Your task to perform on an android device: open app "Spotify" (install if not already installed) Image 0: 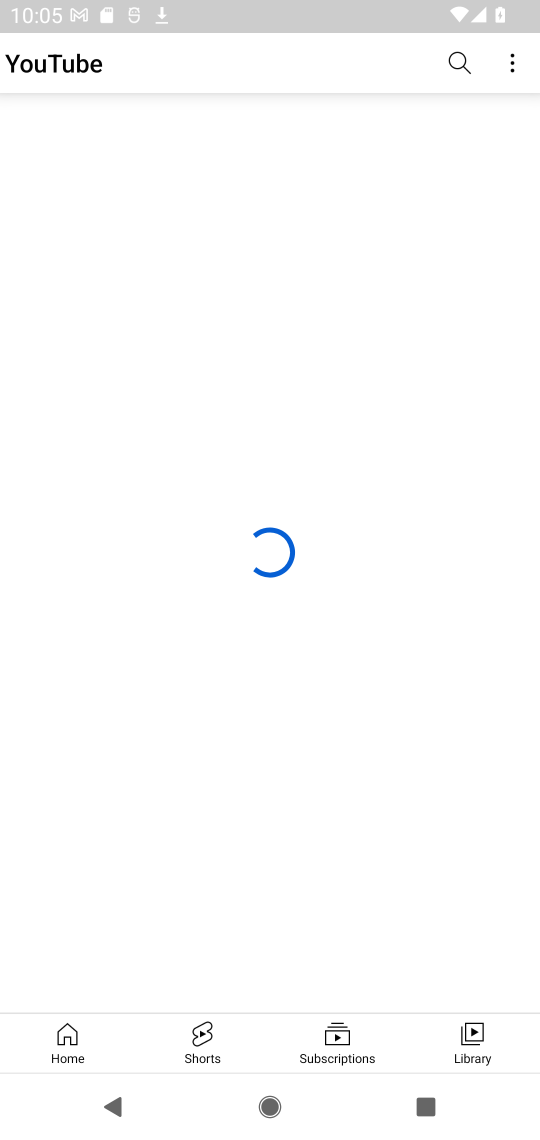
Step 0: press home button
Your task to perform on an android device: open app "Spotify" (install if not already installed) Image 1: 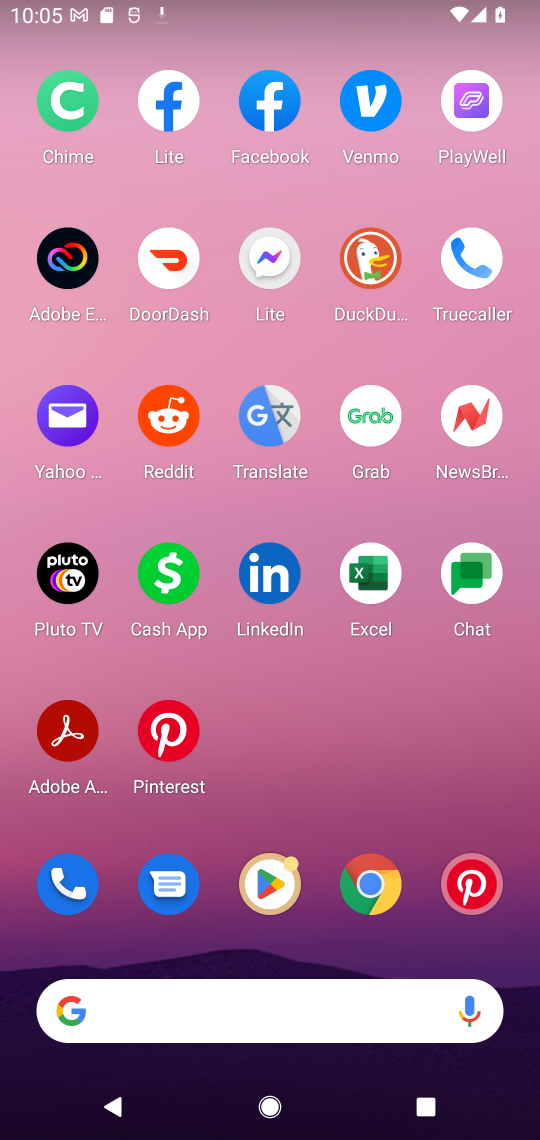
Step 1: click (282, 904)
Your task to perform on an android device: open app "Spotify" (install if not already installed) Image 2: 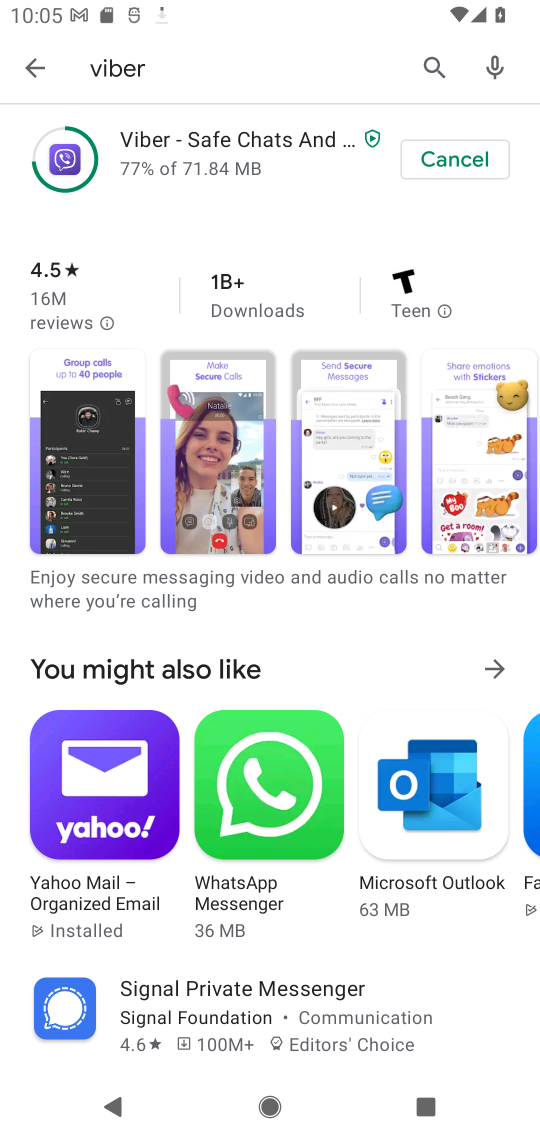
Step 2: click (412, 121)
Your task to perform on an android device: open app "Spotify" (install if not already installed) Image 3: 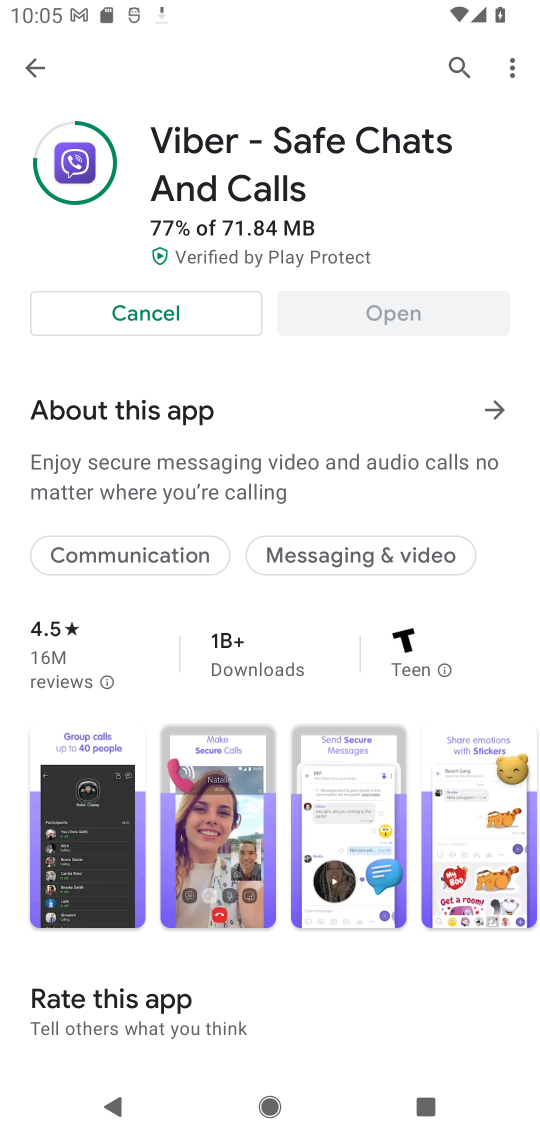
Step 3: click (509, 60)
Your task to perform on an android device: open app "Spotify" (install if not already installed) Image 4: 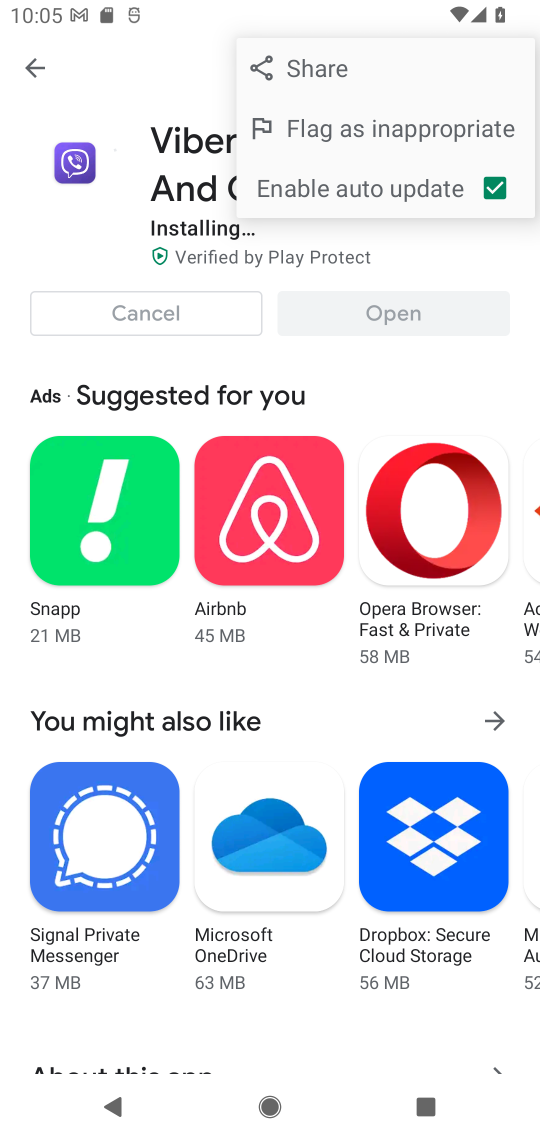
Step 4: click (99, 76)
Your task to perform on an android device: open app "Spotify" (install if not already installed) Image 5: 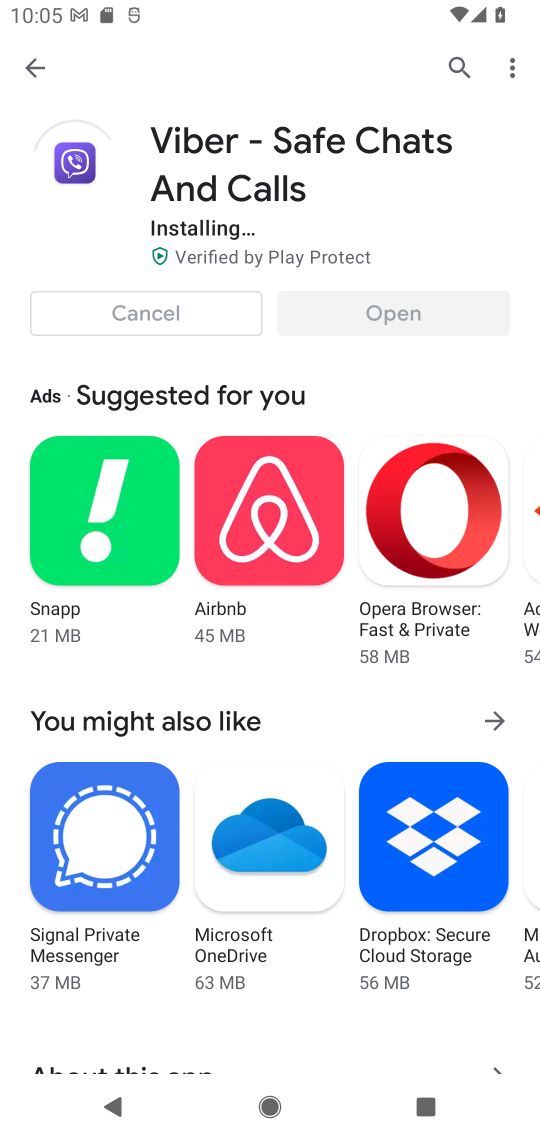
Step 5: click (436, 68)
Your task to perform on an android device: open app "Spotify" (install if not already installed) Image 6: 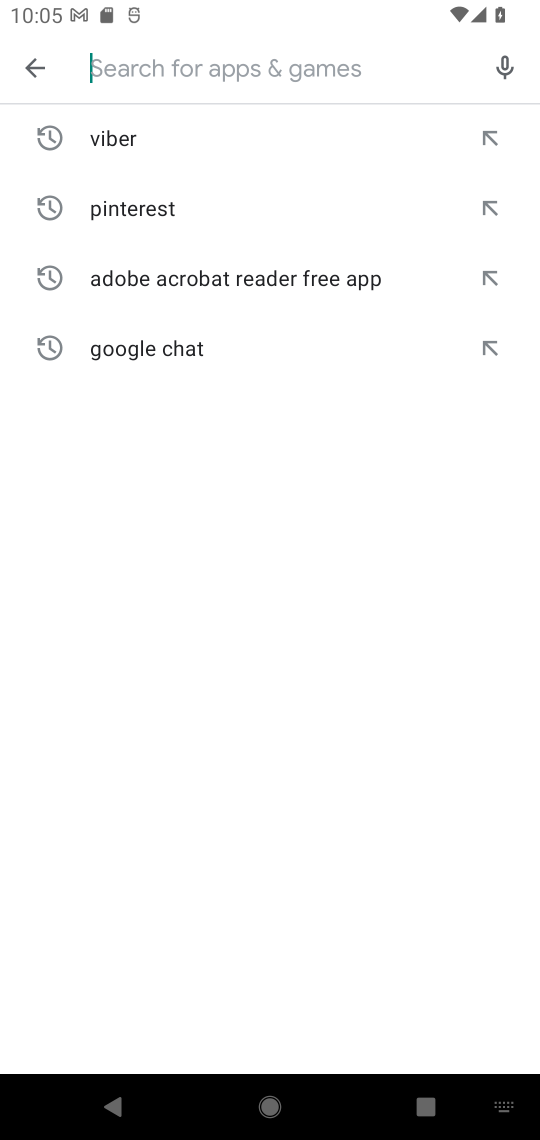
Step 6: type "spotify"
Your task to perform on an android device: open app "Spotify" (install if not already installed) Image 7: 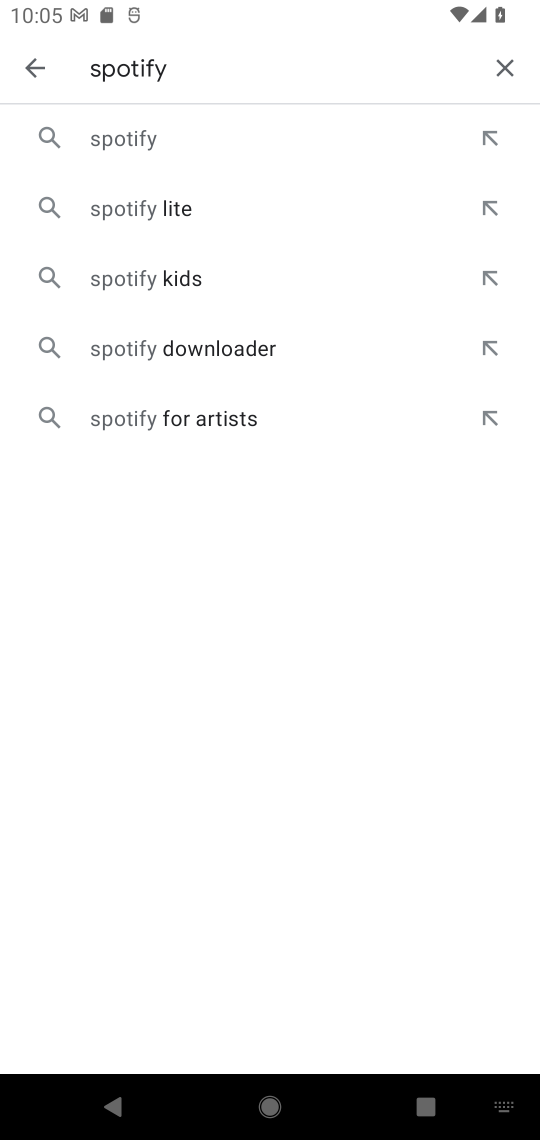
Step 7: click (248, 155)
Your task to perform on an android device: open app "Spotify" (install if not already installed) Image 8: 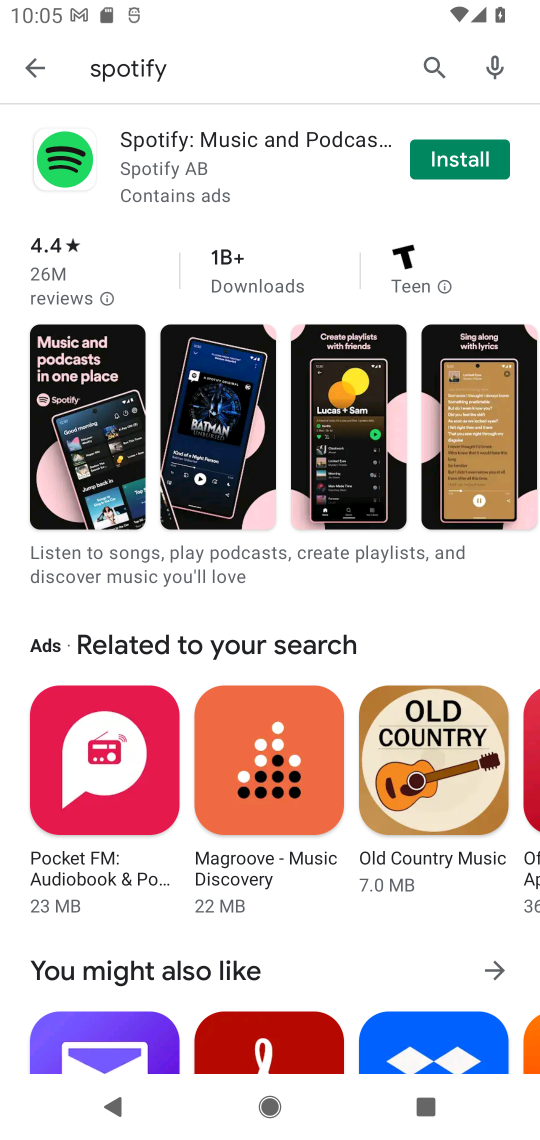
Step 8: click (429, 163)
Your task to perform on an android device: open app "Spotify" (install if not already installed) Image 9: 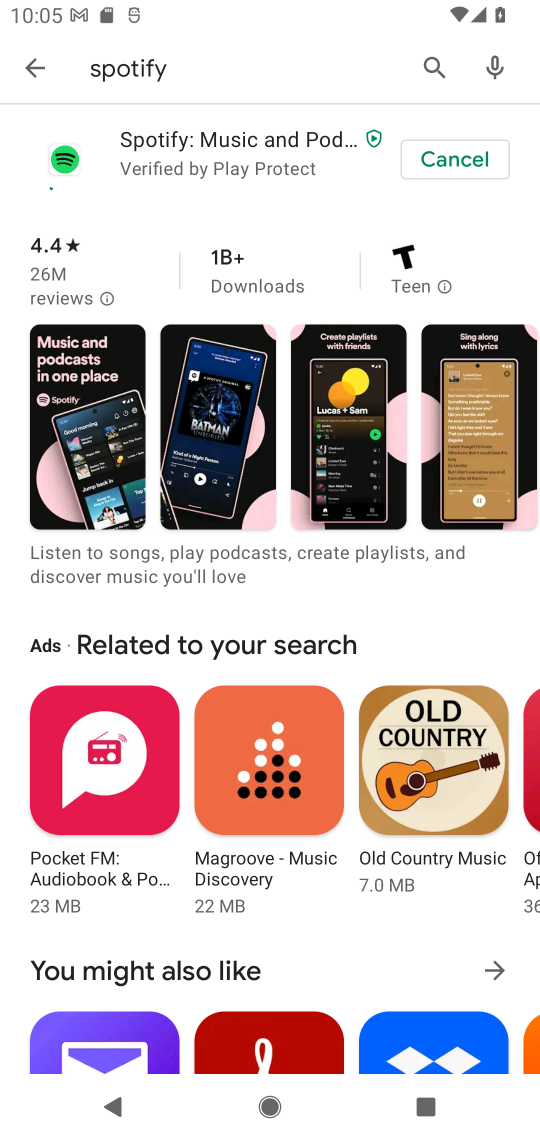
Step 9: task complete